Your task to perform on an android device: Clear the shopping cart on target.com. Add razer nari to the cart on target.com Image 0: 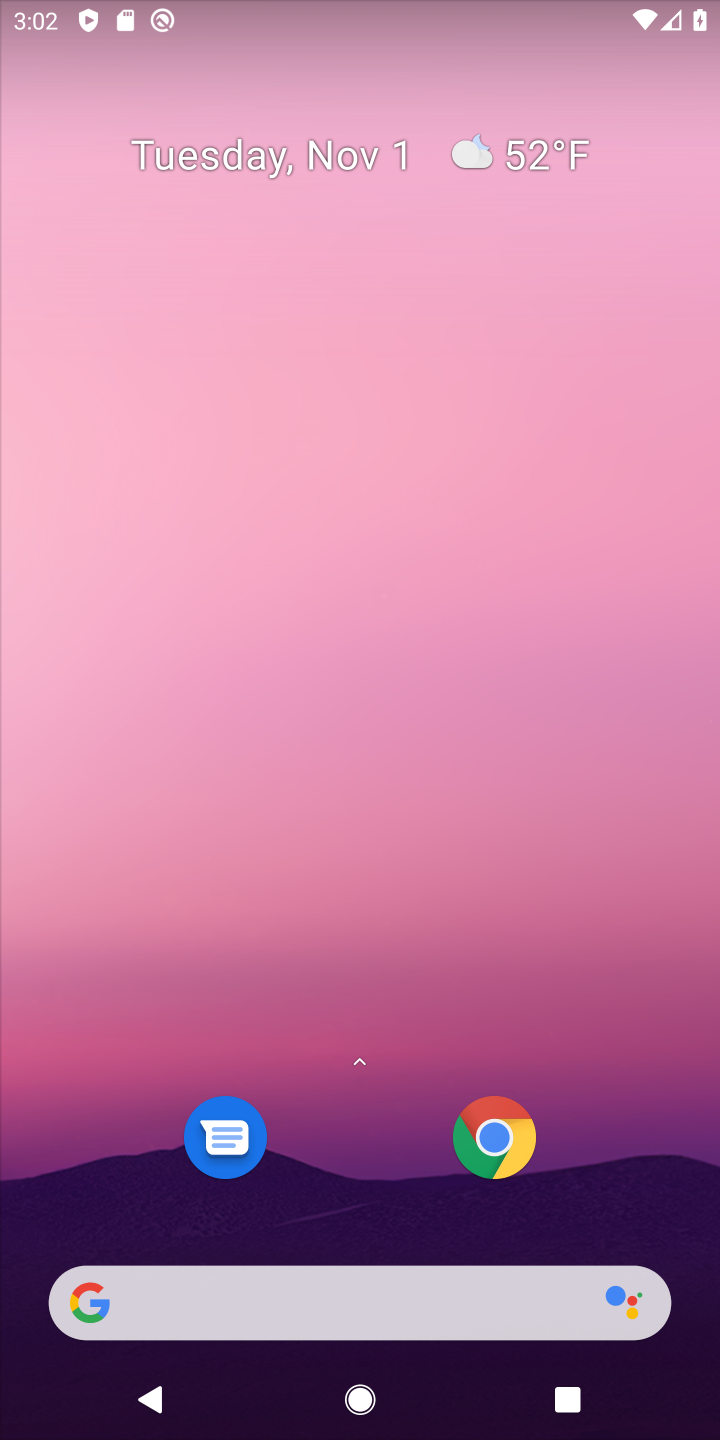
Step 0: click (201, 1273)
Your task to perform on an android device: Clear the shopping cart on target.com. Add razer nari to the cart on target.com Image 1: 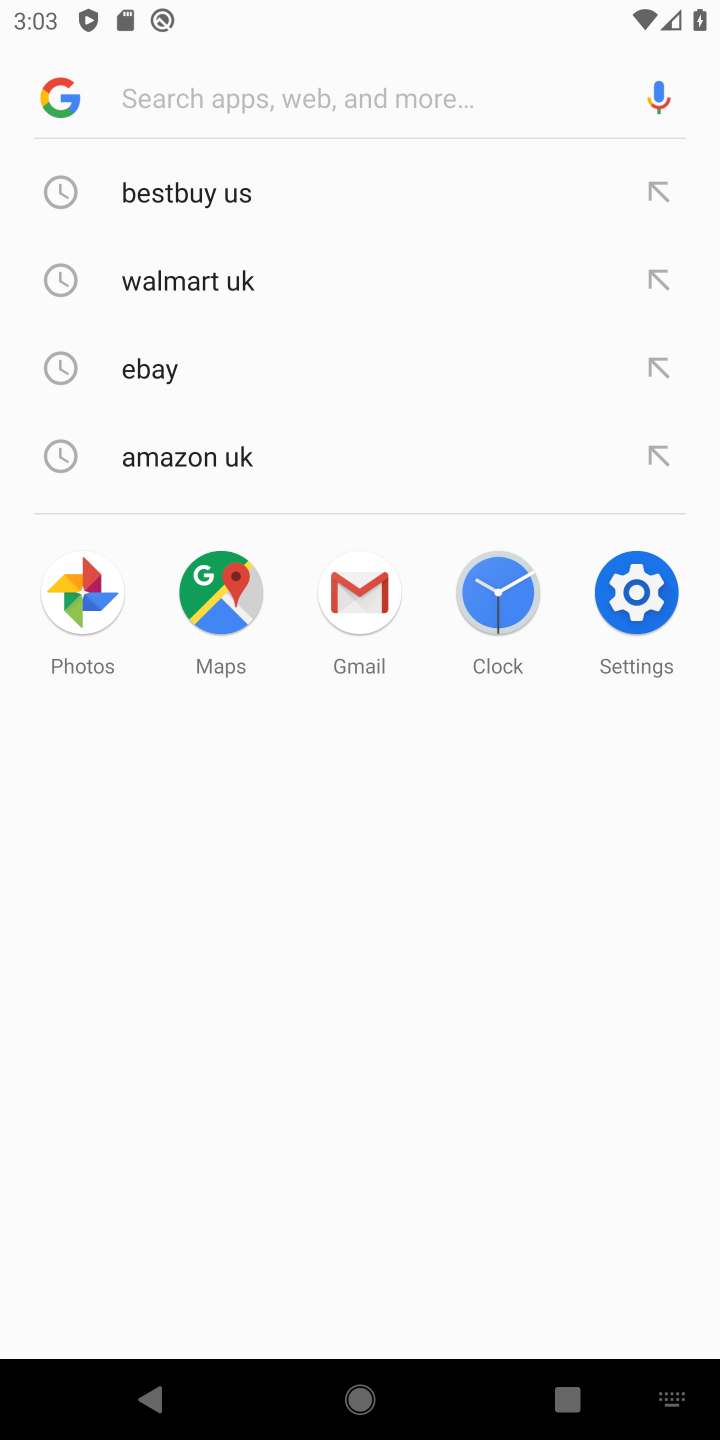
Step 1: type "target"
Your task to perform on an android device: Clear the shopping cart on target.com. Add razer nari to the cart on target.com Image 2: 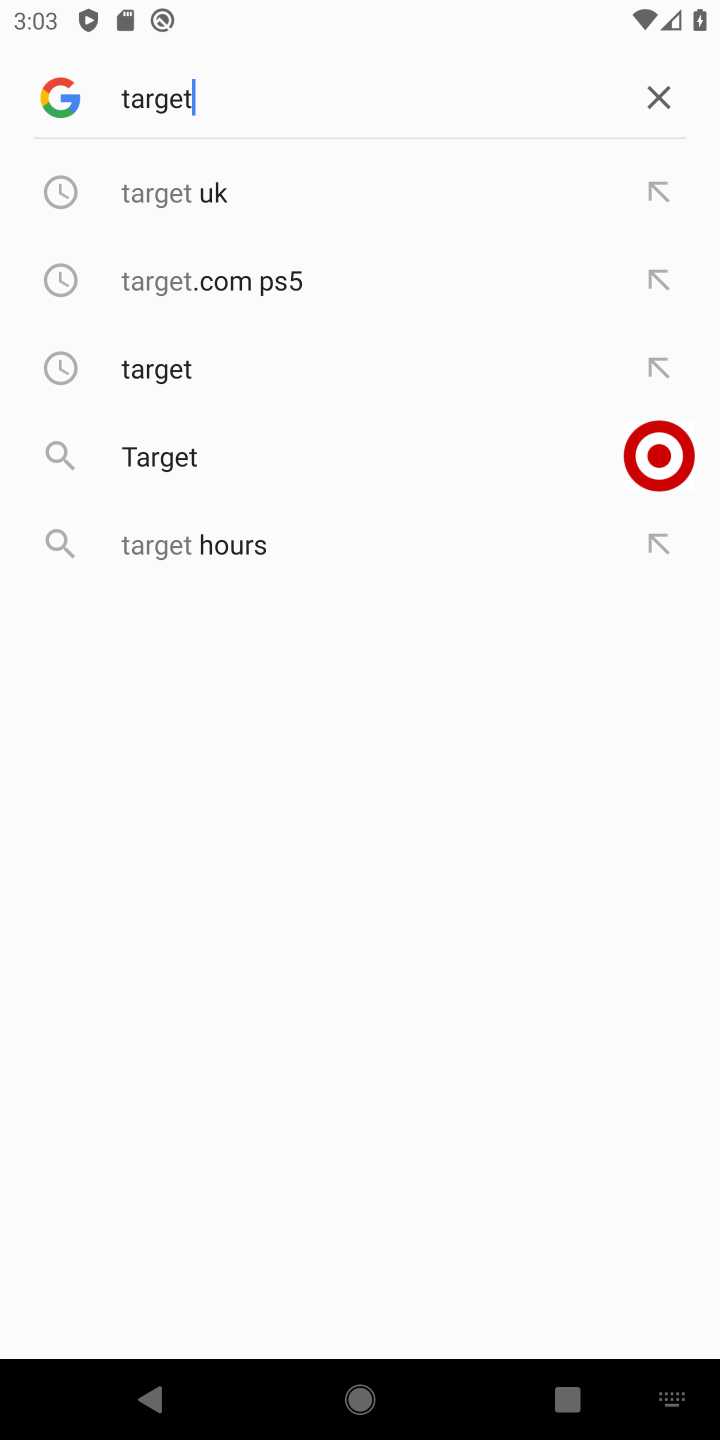
Step 2: click (174, 346)
Your task to perform on an android device: Clear the shopping cart on target.com. Add razer nari to the cart on target.com Image 3: 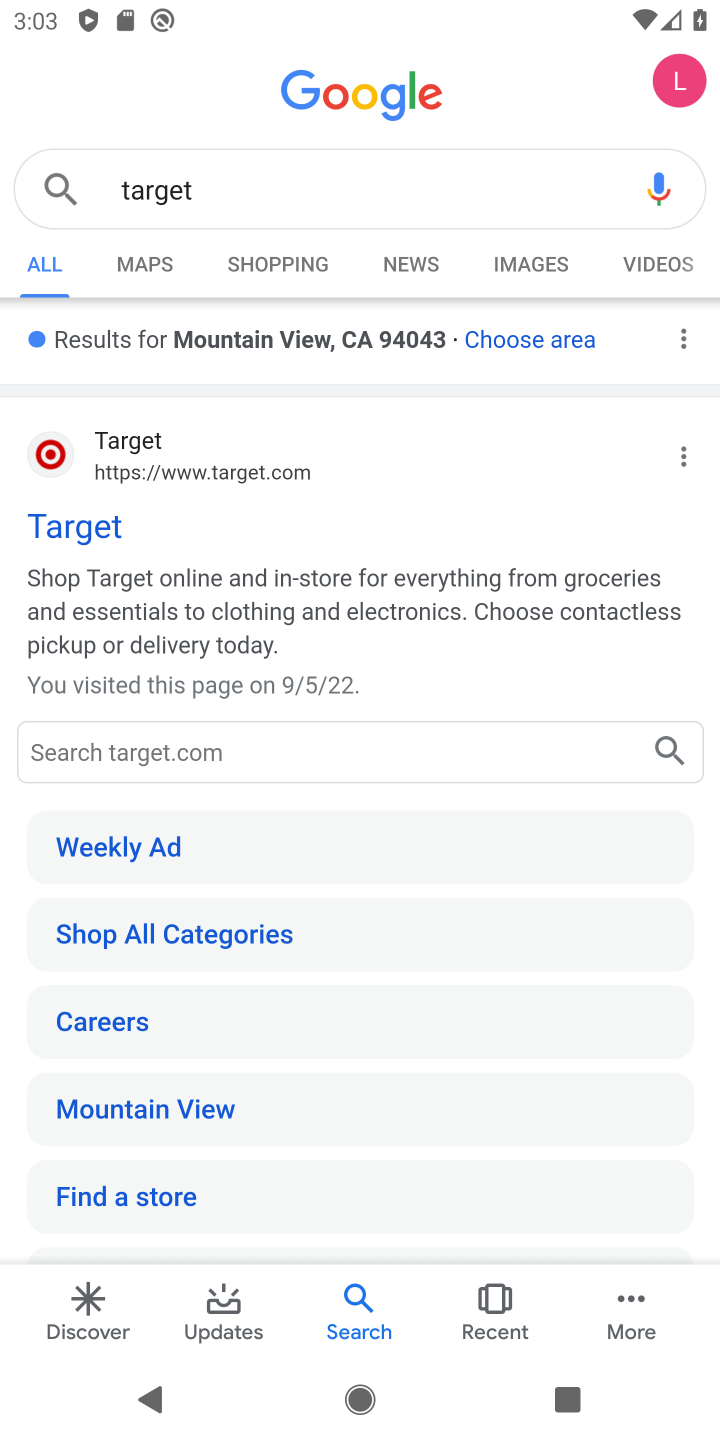
Step 3: click (58, 535)
Your task to perform on an android device: Clear the shopping cart on target.com. Add razer nari to the cart on target.com Image 4: 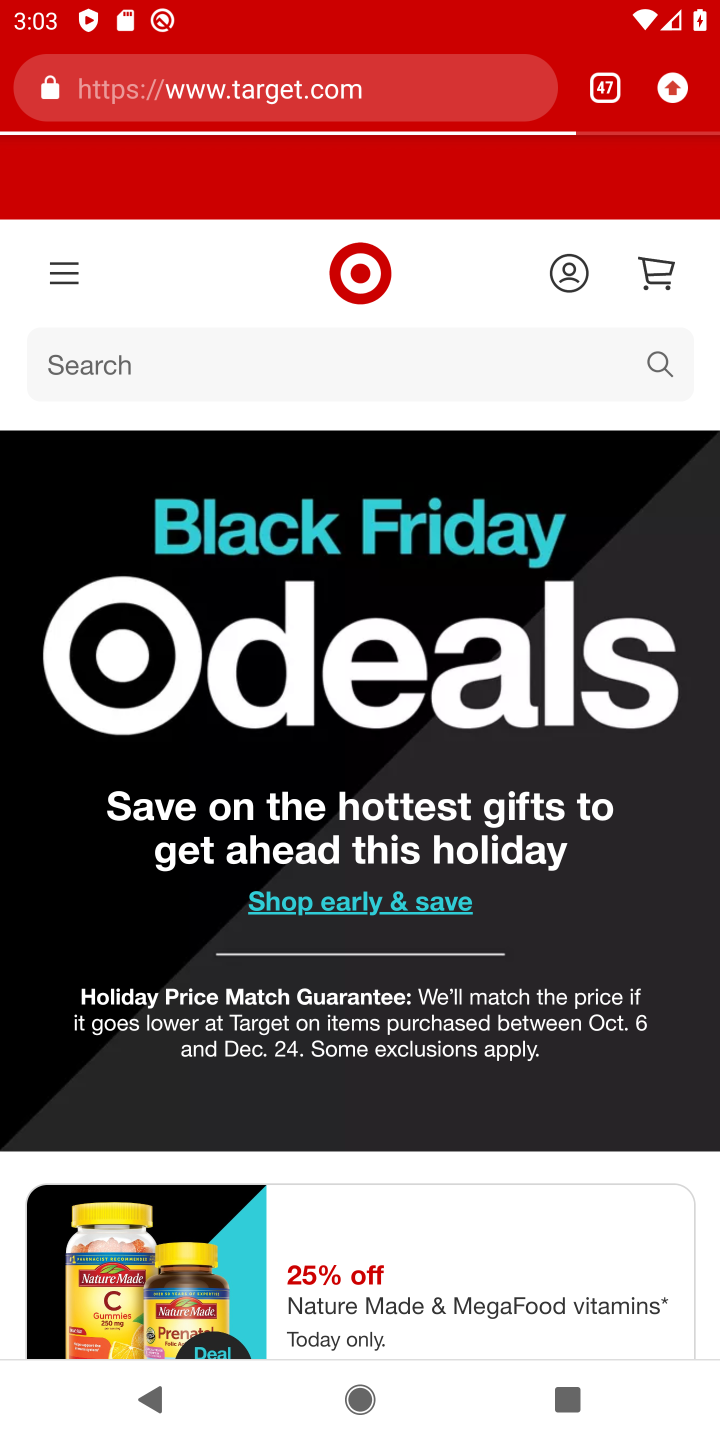
Step 4: click (460, 371)
Your task to perform on an android device: Clear the shopping cart on target.com. Add razer nari to the cart on target.com Image 5: 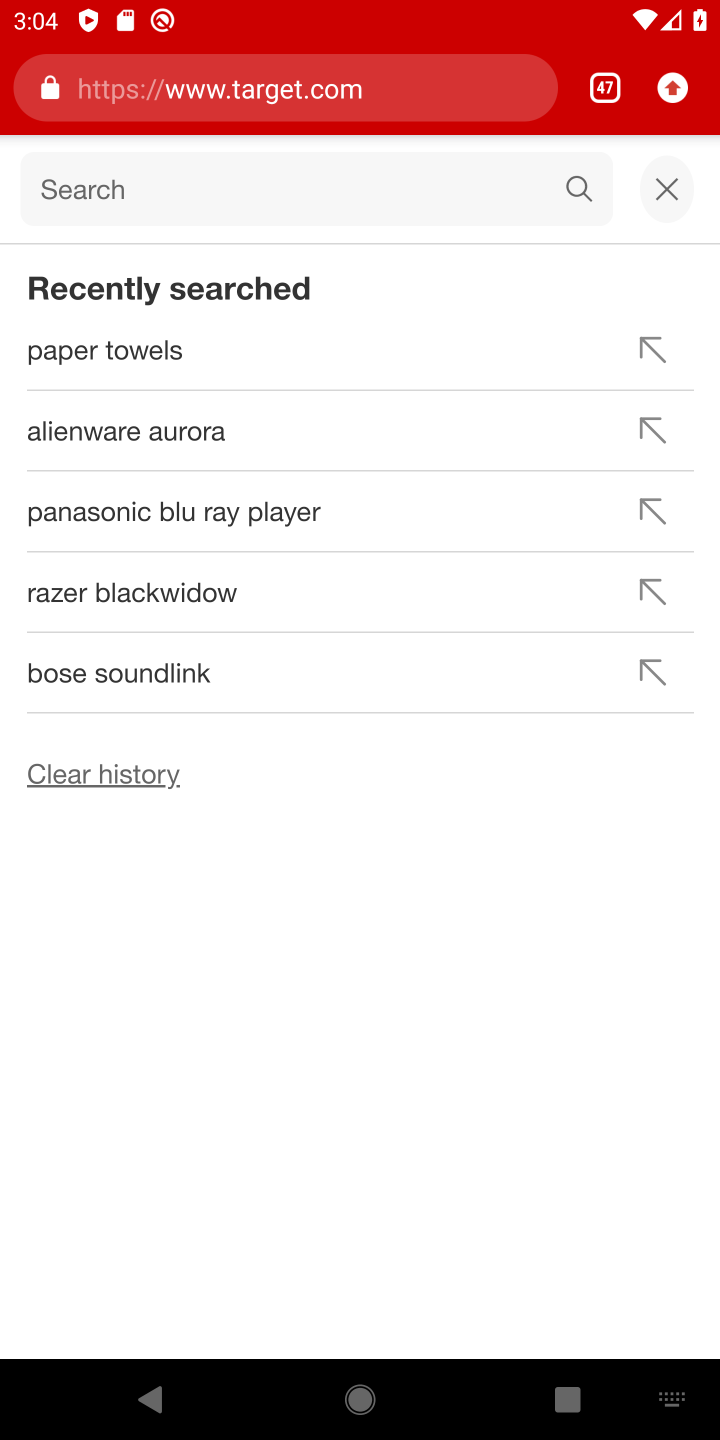
Step 5: type "razer  nari"
Your task to perform on an android device: Clear the shopping cart on target.com. Add razer nari to the cart on target.com Image 6: 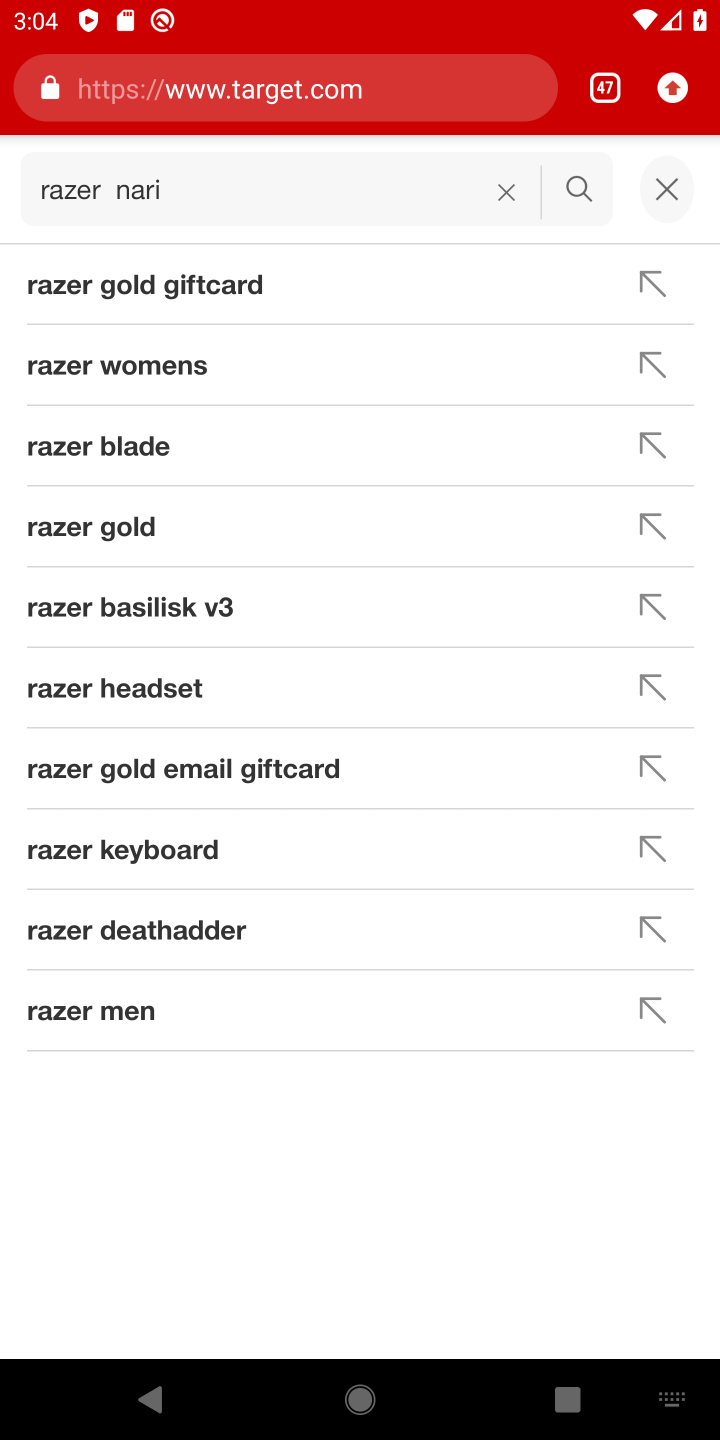
Step 6: click (563, 189)
Your task to perform on an android device: Clear the shopping cart on target.com. Add razer nari to the cart on target.com Image 7: 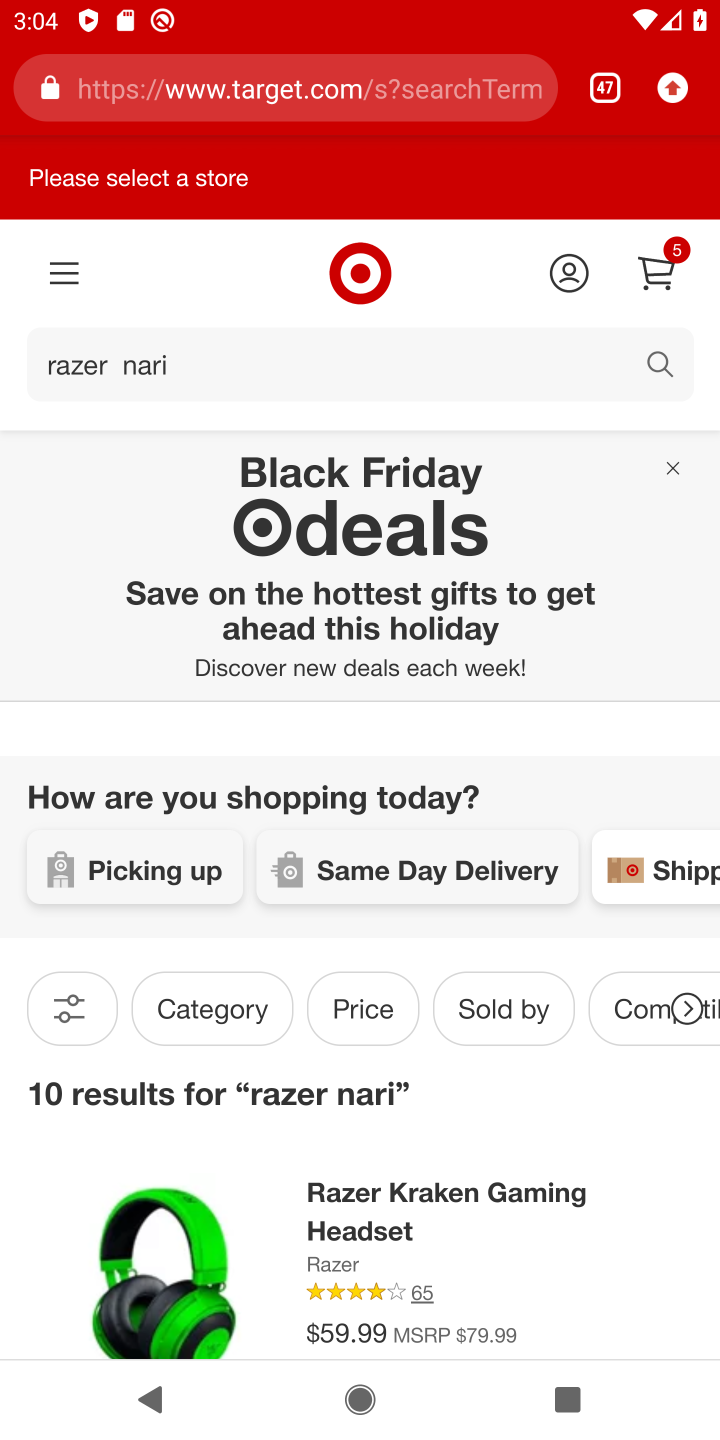
Step 7: click (321, 1187)
Your task to perform on an android device: Clear the shopping cart on target.com. Add razer nari to the cart on target.com Image 8: 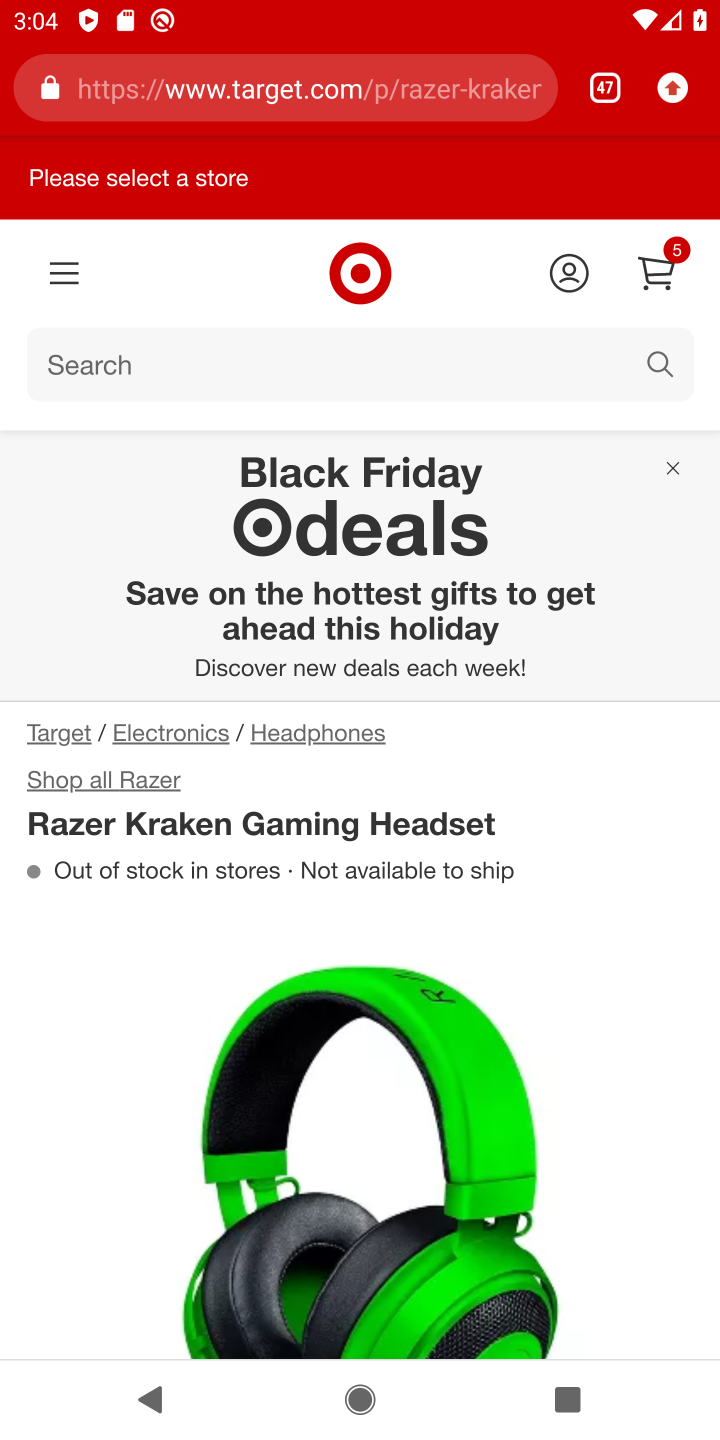
Step 8: drag from (211, 1275) to (199, 148)
Your task to perform on an android device: Clear the shopping cart on target.com. Add razer nari to the cart on target.com Image 9: 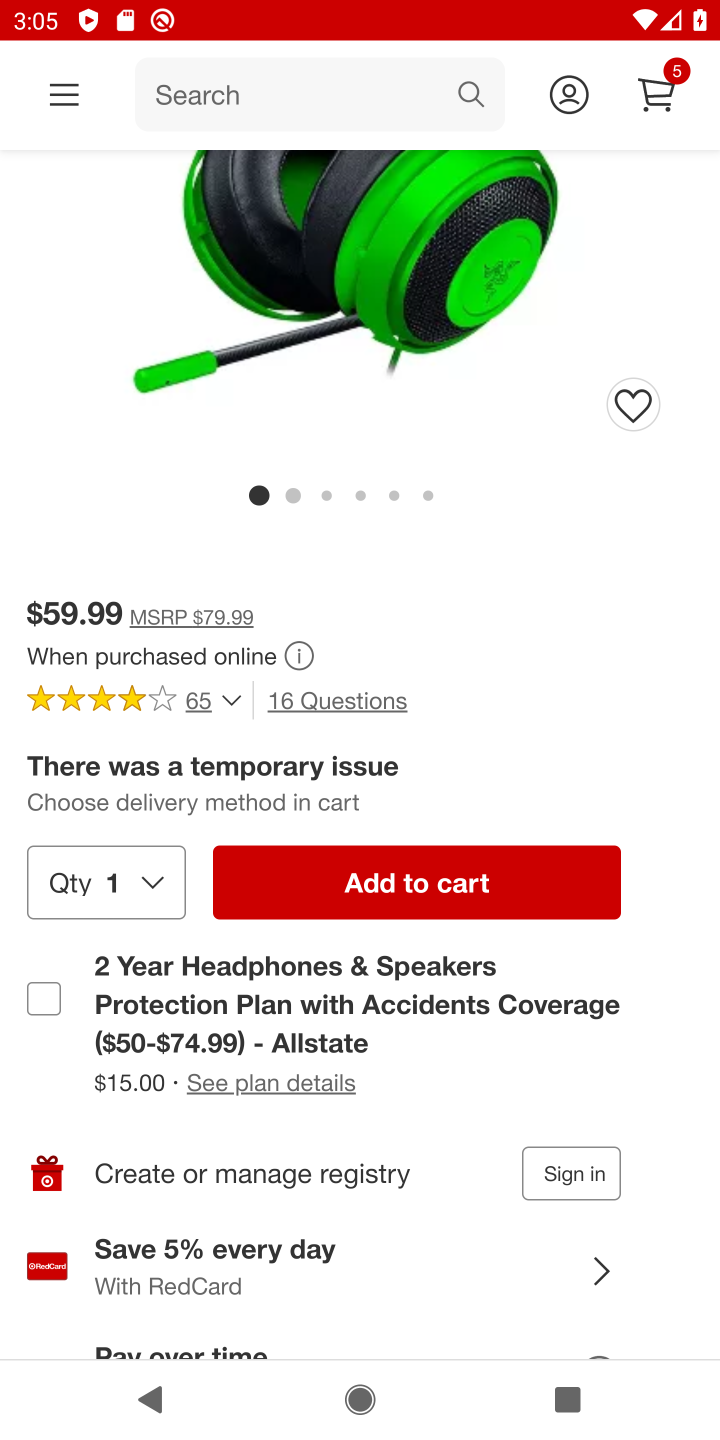
Step 9: click (409, 915)
Your task to perform on an android device: Clear the shopping cart on target.com. Add razer nari to the cart on target.com Image 10: 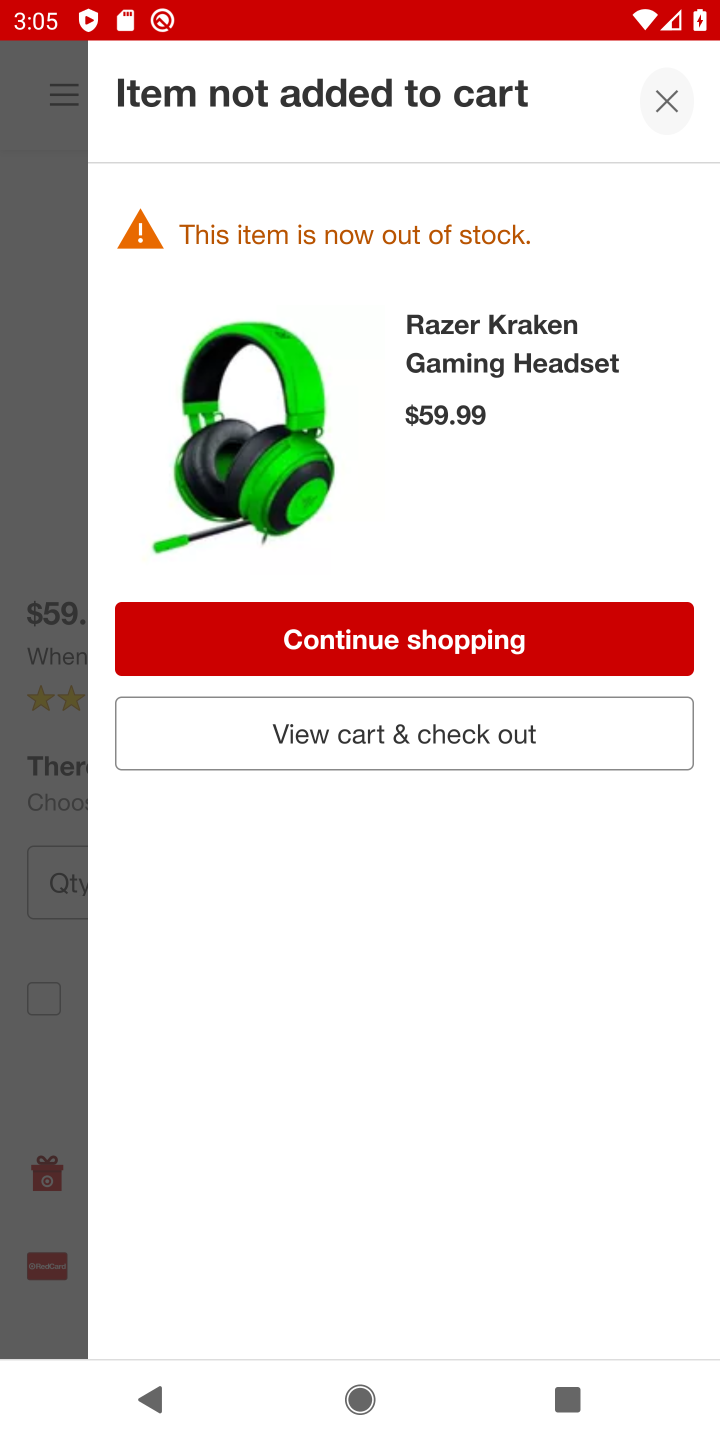
Step 10: click (447, 644)
Your task to perform on an android device: Clear the shopping cart on target.com. Add razer nari to the cart on target.com Image 11: 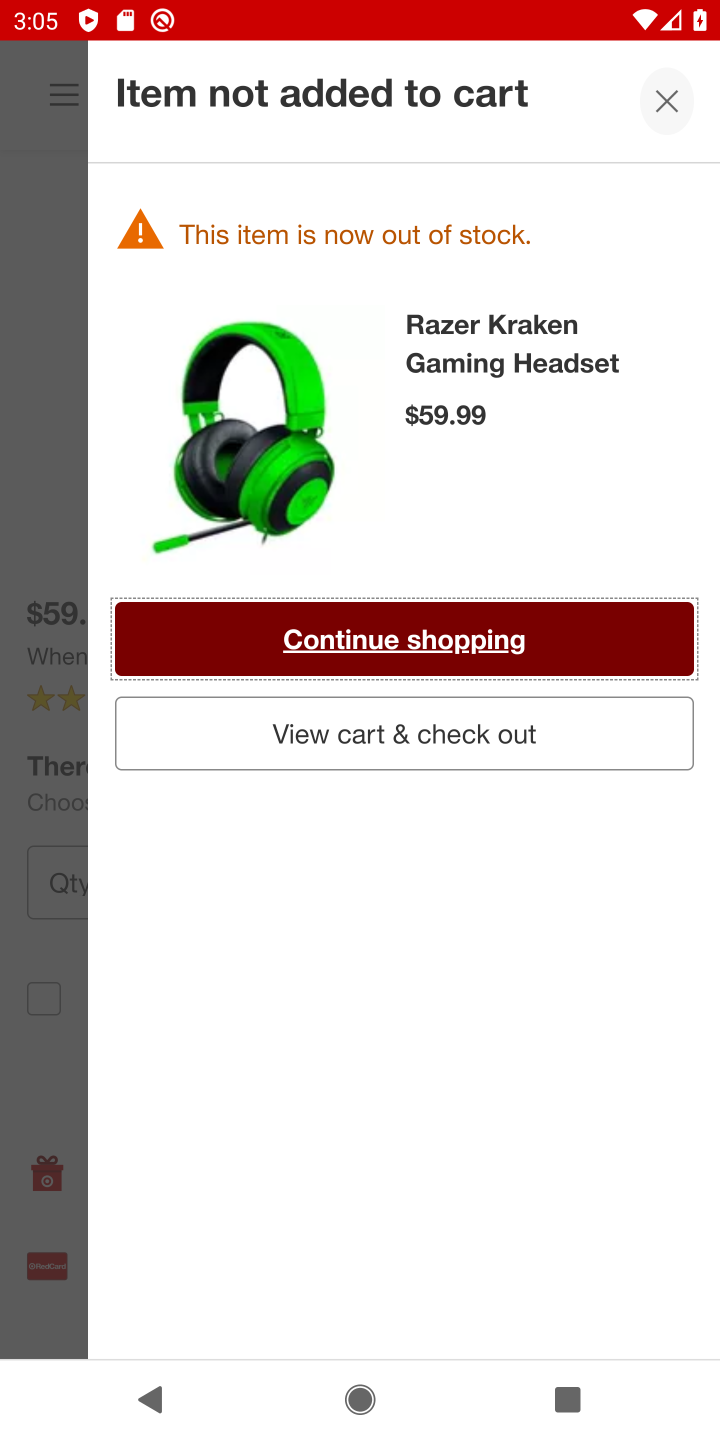
Step 11: task complete